Your task to perform on an android device: turn off picture-in-picture Image 0: 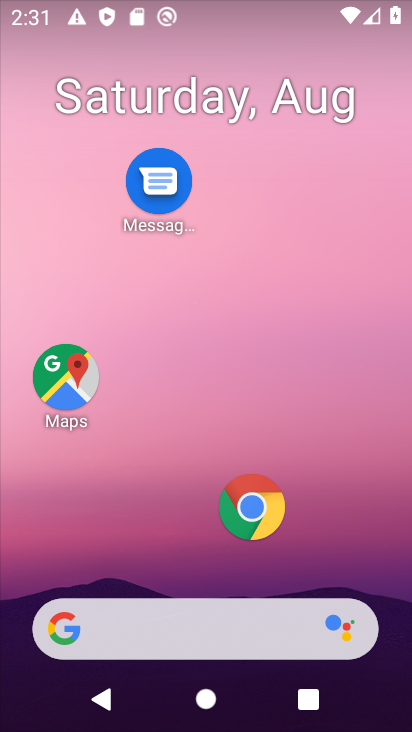
Step 0: click (259, 503)
Your task to perform on an android device: turn off picture-in-picture Image 1: 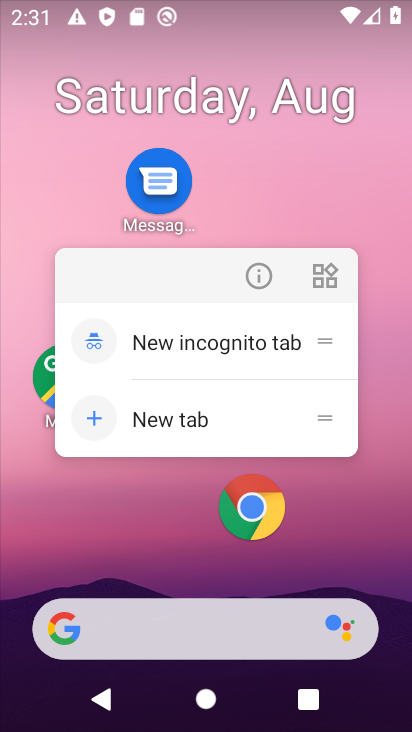
Step 1: click (263, 279)
Your task to perform on an android device: turn off picture-in-picture Image 2: 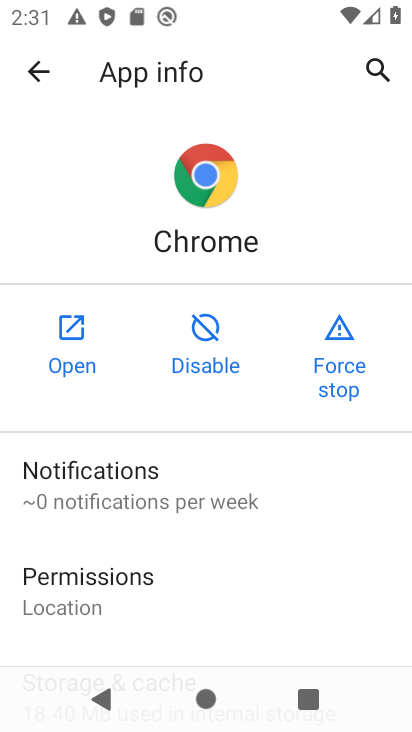
Step 2: drag from (210, 425) to (210, 208)
Your task to perform on an android device: turn off picture-in-picture Image 3: 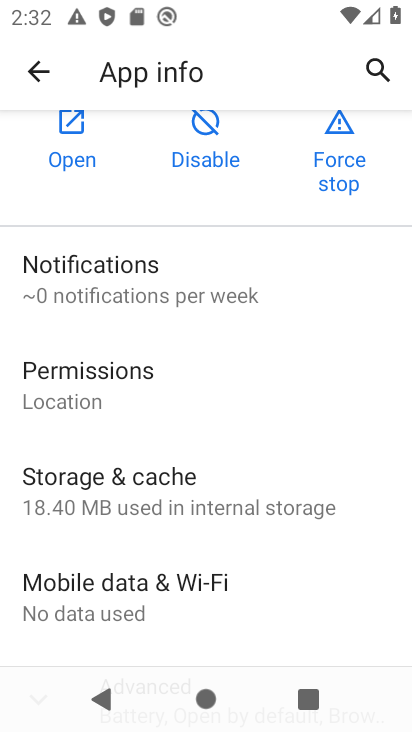
Step 3: drag from (179, 555) to (205, 280)
Your task to perform on an android device: turn off picture-in-picture Image 4: 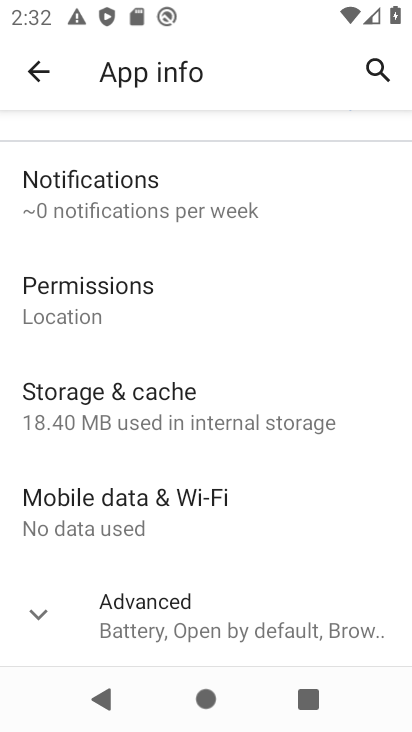
Step 4: click (134, 614)
Your task to perform on an android device: turn off picture-in-picture Image 5: 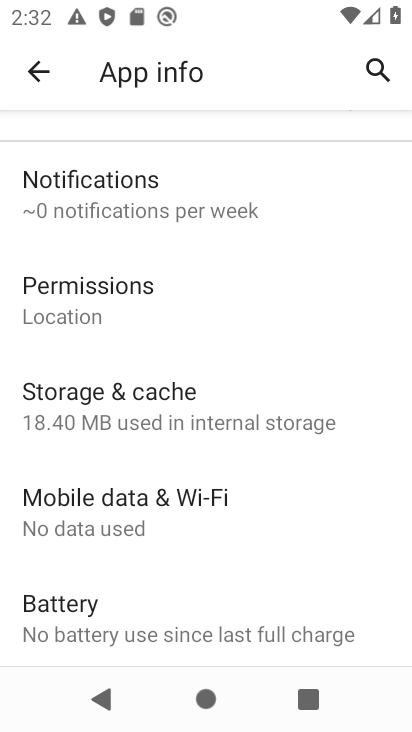
Step 5: drag from (131, 622) to (194, 134)
Your task to perform on an android device: turn off picture-in-picture Image 6: 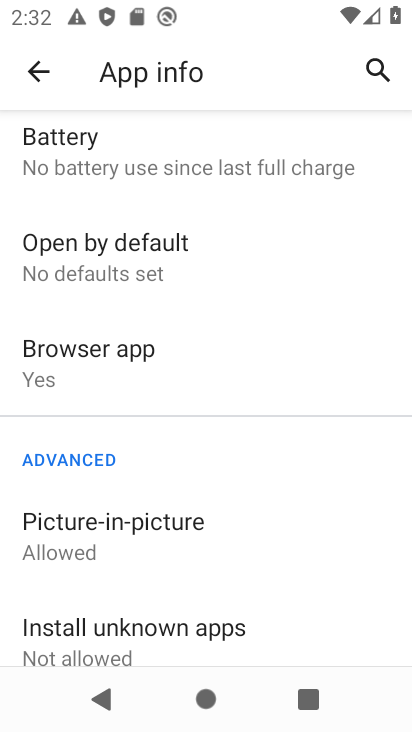
Step 6: click (122, 547)
Your task to perform on an android device: turn off picture-in-picture Image 7: 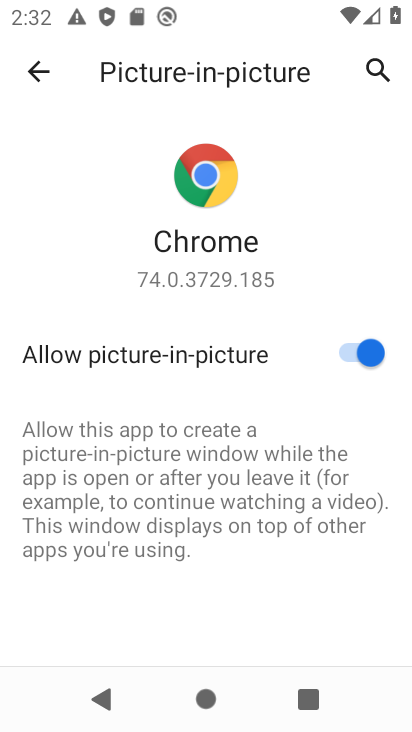
Step 7: click (316, 352)
Your task to perform on an android device: turn off picture-in-picture Image 8: 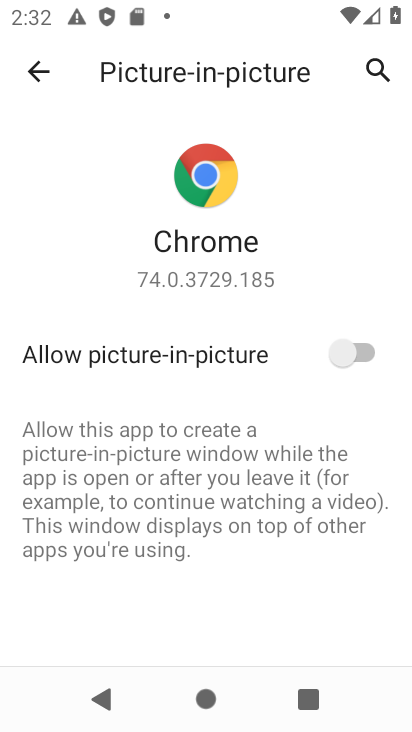
Step 8: task complete